Your task to perform on an android device: change timer sound Image 0: 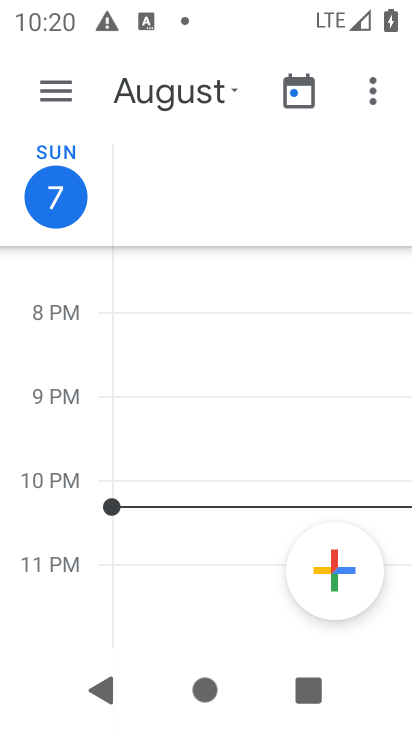
Step 0: press home button
Your task to perform on an android device: change timer sound Image 1: 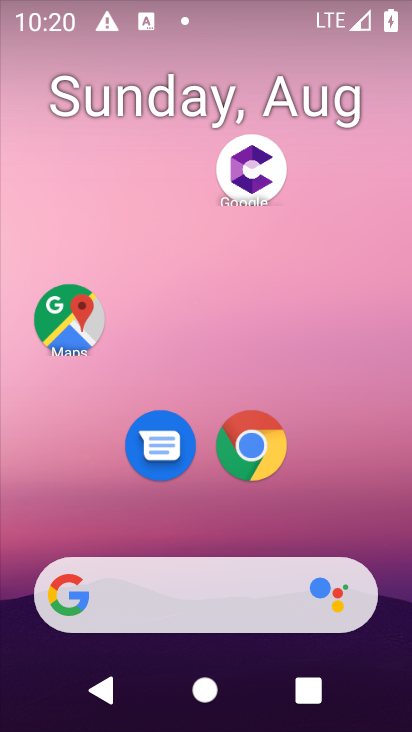
Step 1: drag from (210, 512) to (259, 10)
Your task to perform on an android device: change timer sound Image 2: 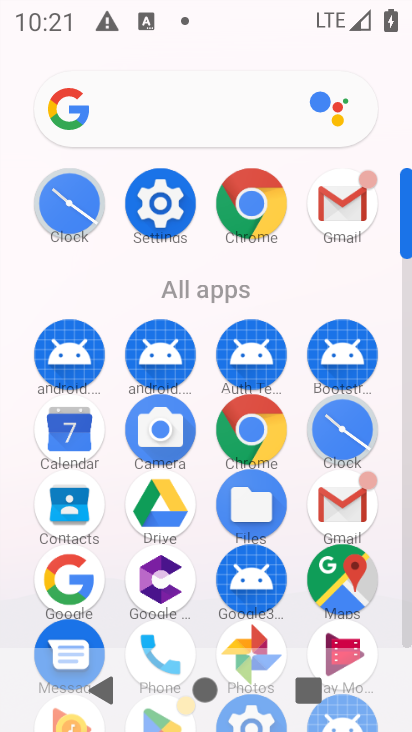
Step 2: click (343, 424)
Your task to perform on an android device: change timer sound Image 3: 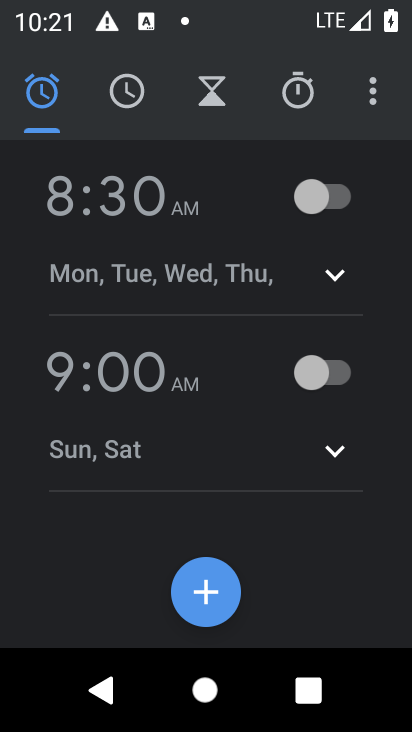
Step 3: click (373, 97)
Your task to perform on an android device: change timer sound Image 4: 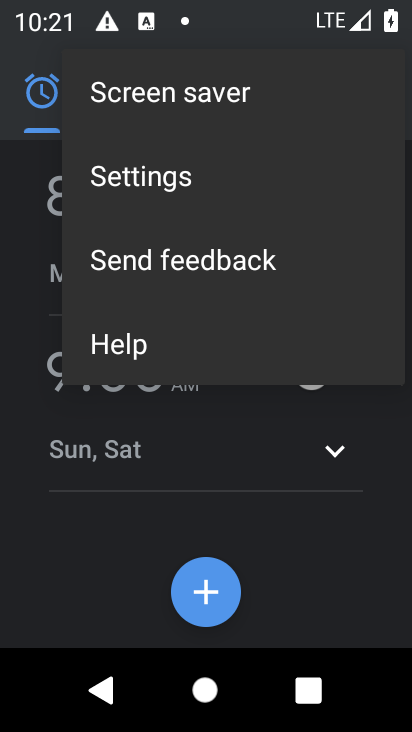
Step 4: click (192, 177)
Your task to perform on an android device: change timer sound Image 5: 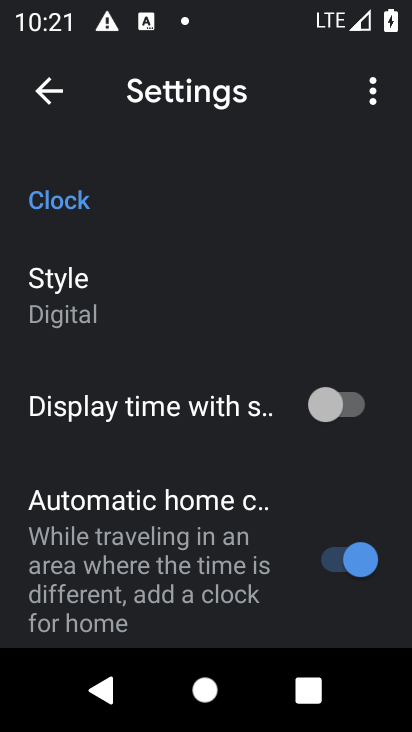
Step 5: drag from (220, 563) to (262, 129)
Your task to perform on an android device: change timer sound Image 6: 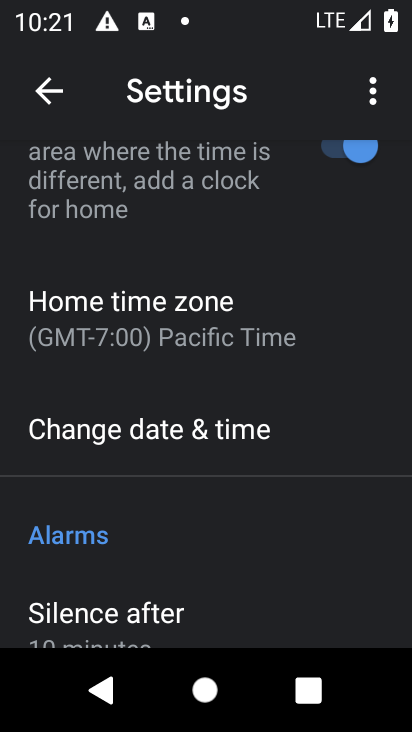
Step 6: drag from (253, 541) to (274, 166)
Your task to perform on an android device: change timer sound Image 7: 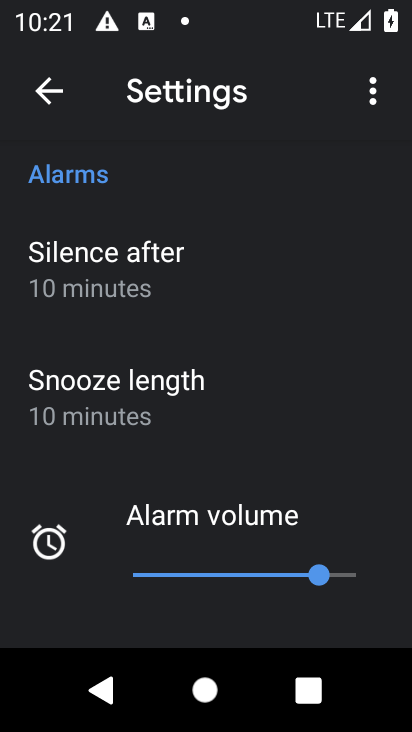
Step 7: drag from (207, 484) to (233, 153)
Your task to perform on an android device: change timer sound Image 8: 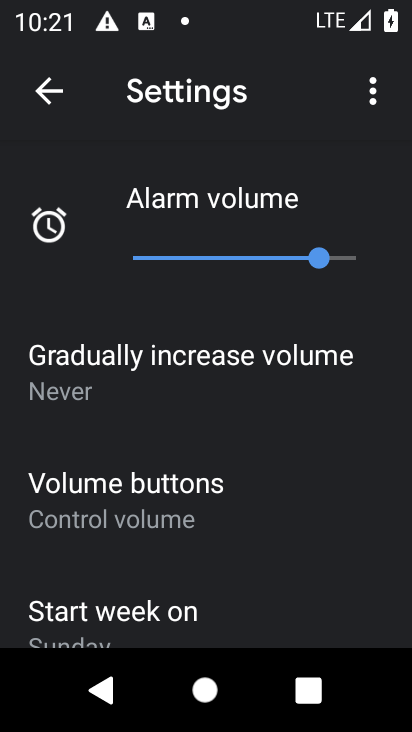
Step 8: drag from (214, 595) to (225, 144)
Your task to perform on an android device: change timer sound Image 9: 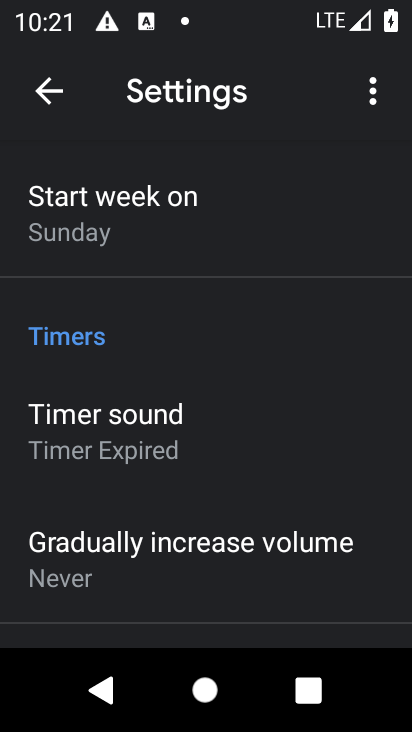
Step 9: click (188, 440)
Your task to perform on an android device: change timer sound Image 10: 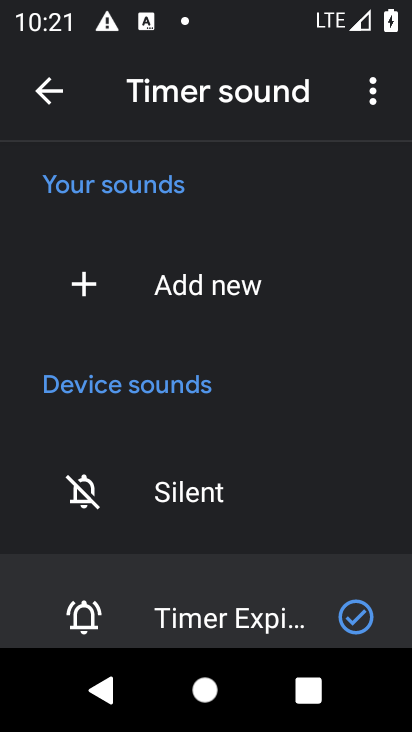
Step 10: click (210, 496)
Your task to perform on an android device: change timer sound Image 11: 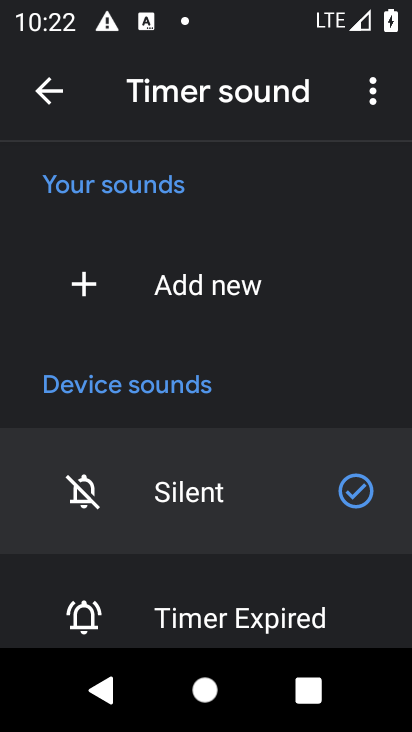
Step 11: task complete